Your task to perform on an android device: see tabs open on other devices in the chrome app Image 0: 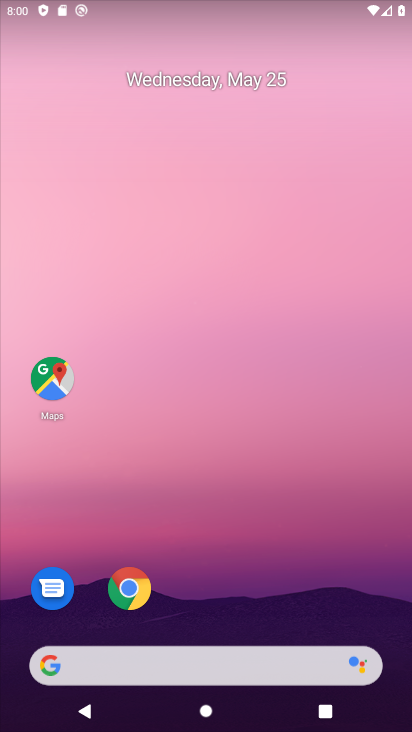
Step 0: click (136, 594)
Your task to perform on an android device: see tabs open on other devices in the chrome app Image 1: 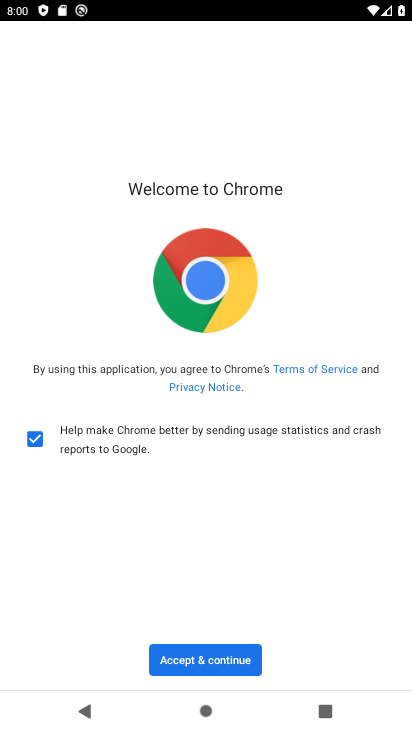
Step 1: click (207, 654)
Your task to perform on an android device: see tabs open on other devices in the chrome app Image 2: 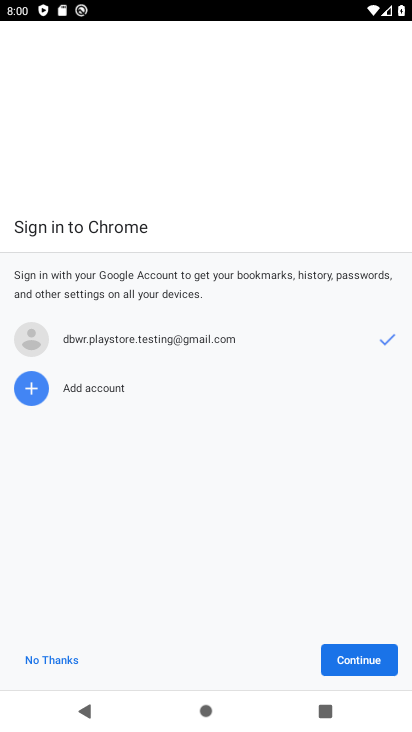
Step 2: click (43, 658)
Your task to perform on an android device: see tabs open on other devices in the chrome app Image 3: 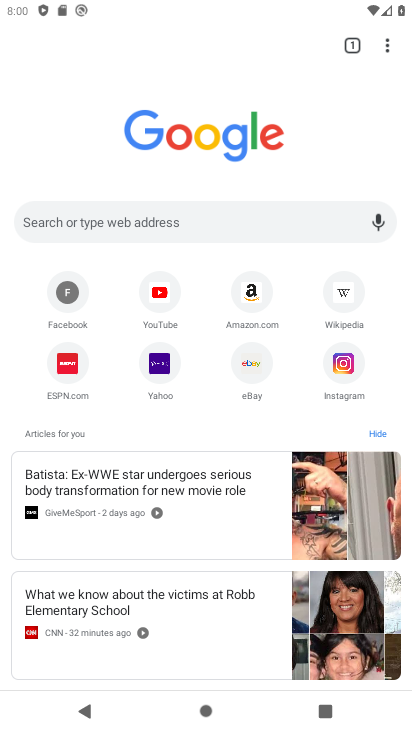
Step 3: task complete